Your task to perform on an android device: Go to sound settings Image 0: 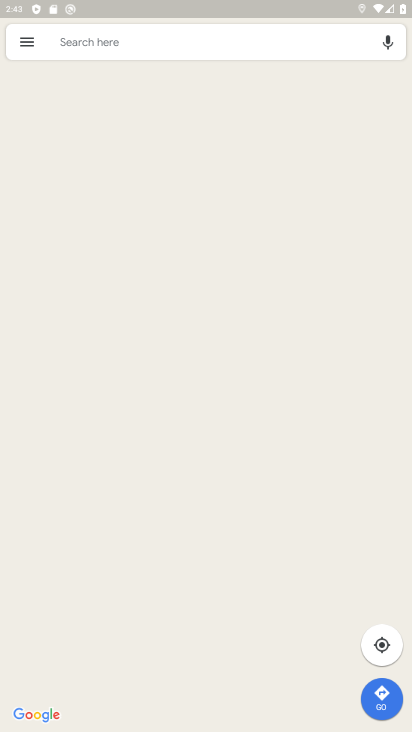
Step 0: press home button
Your task to perform on an android device: Go to sound settings Image 1: 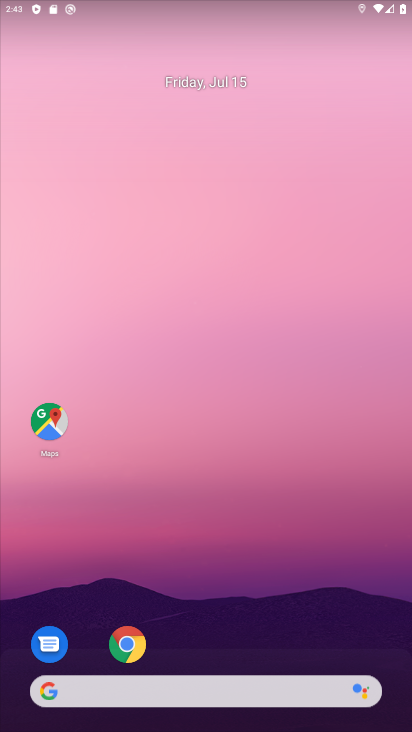
Step 1: drag from (230, 659) to (313, 161)
Your task to perform on an android device: Go to sound settings Image 2: 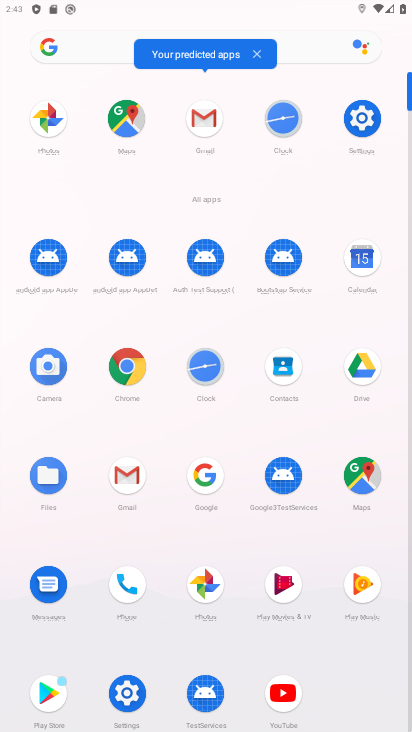
Step 2: click (137, 706)
Your task to perform on an android device: Go to sound settings Image 3: 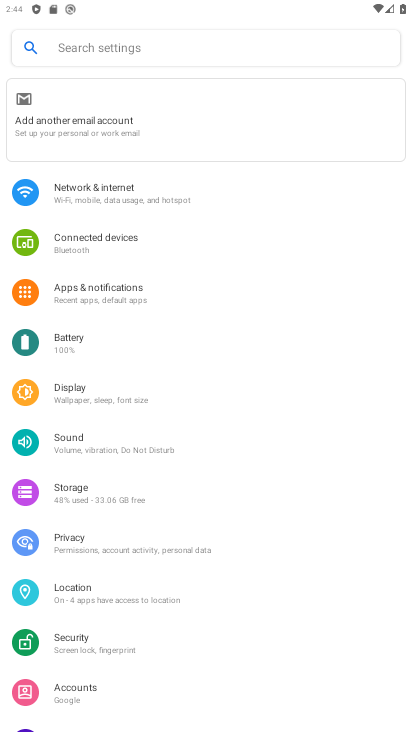
Step 3: click (91, 436)
Your task to perform on an android device: Go to sound settings Image 4: 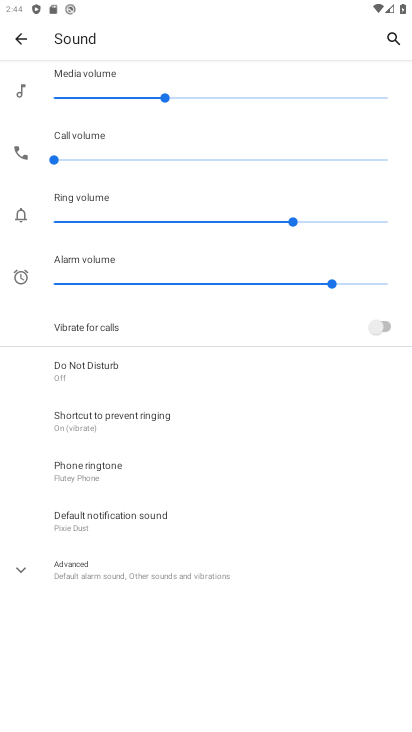
Step 4: task complete